Your task to perform on an android device: Open location settings Image 0: 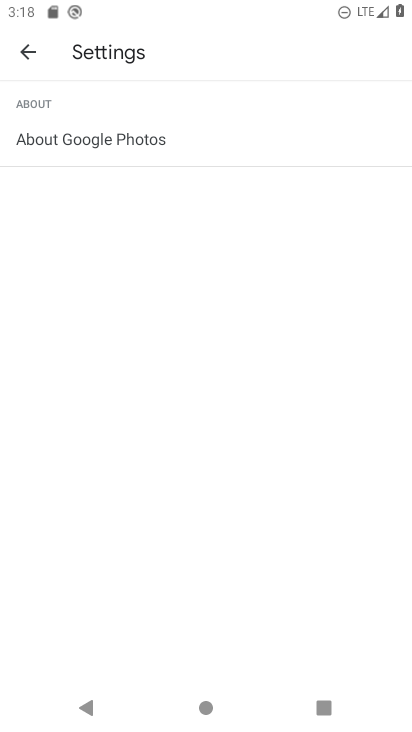
Step 0: drag from (296, 636) to (244, 1)
Your task to perform on an android device: Open location settings Image 1: 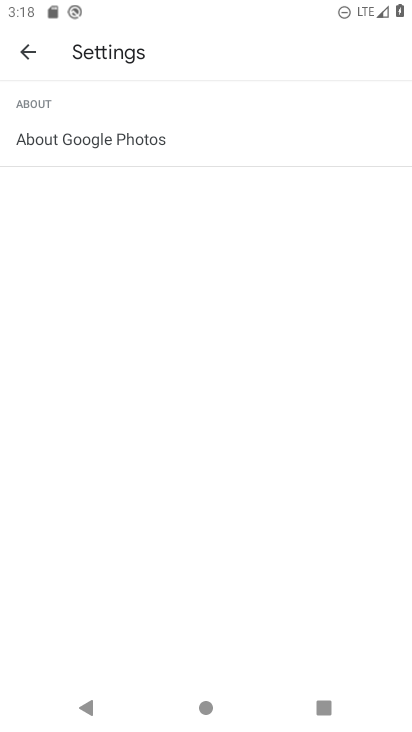
Step 1: press home button
Your task to perform on an android device: Open location settings Image 2: 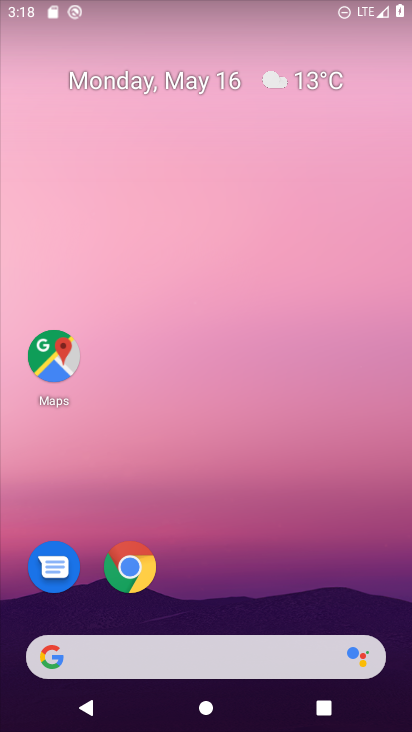
Step 2: drag from (291, 554) to (268, 26)
Your task to perform on an android device: Open location settings Image 3: 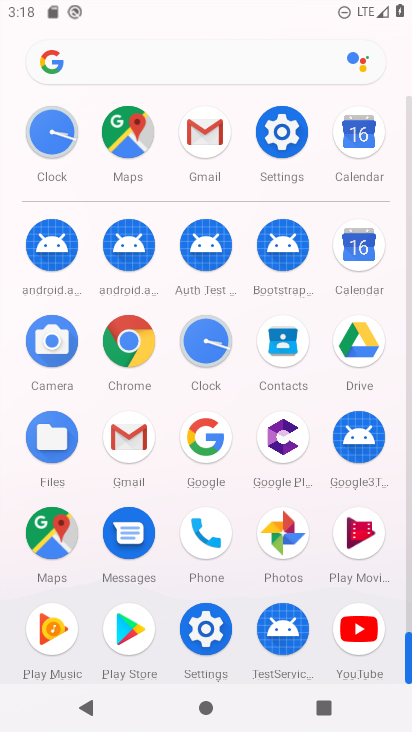
Step 3: click (212, 630)
Your task to perform on an android device: Open location settings Image 4: 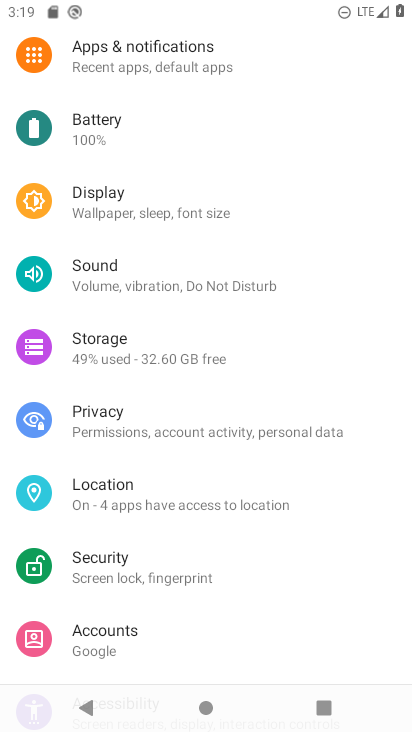
Step 4: click (145, 496)
Your task to perform on an android device: Open location settings Image 5: 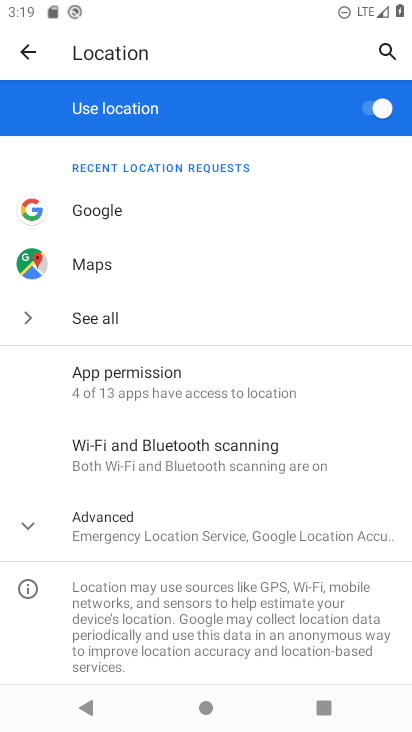
Step 5: task complete